Your task to perform on an android device: set default search engine in the chrome app Image 0: 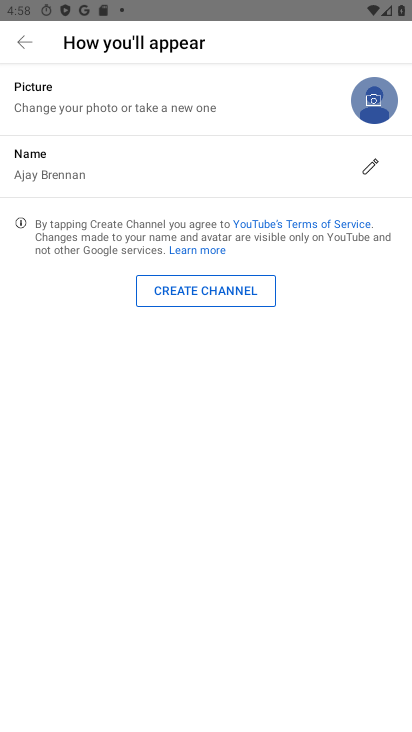
Step 0: drag from (318, 581) to (342, 228)
Your task to perform on an android device: set default search engine in the chrome app Image 1: 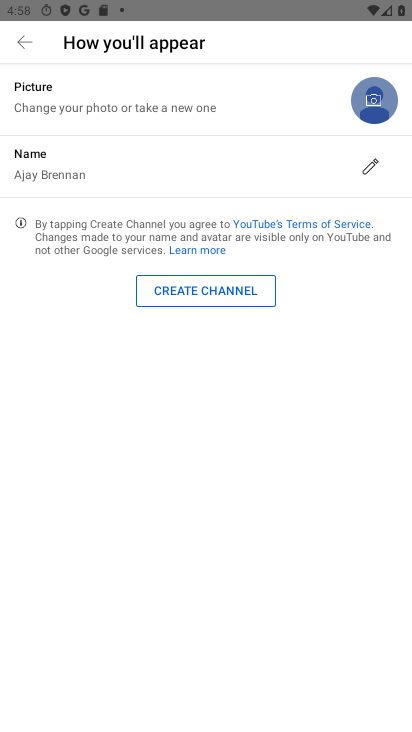
Step 1: press home button
Your task to perform on an android device: set default search engine in the chrome app Image 2: 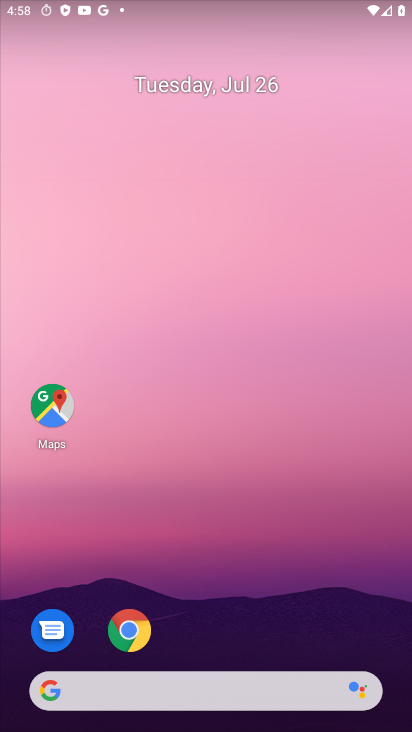
Step 2: drag from (355, 581) to (264, 18)
Your task to perform on an android device: set default search engine in the chrome app Image 3: 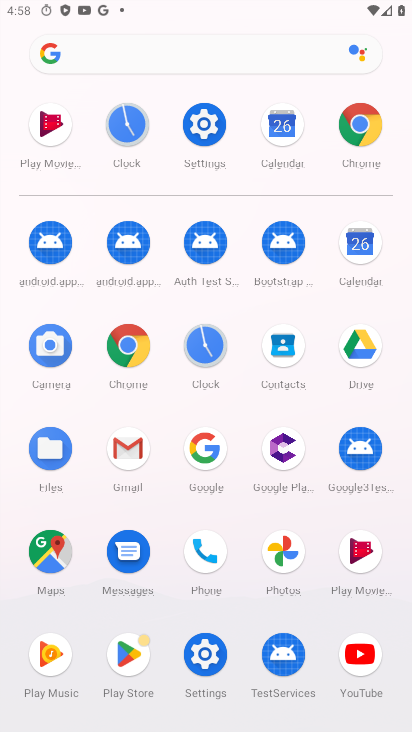
Step 3: click (129, 345)
Your task to perform on an android device: set default search engine in the chrome app Image 4: 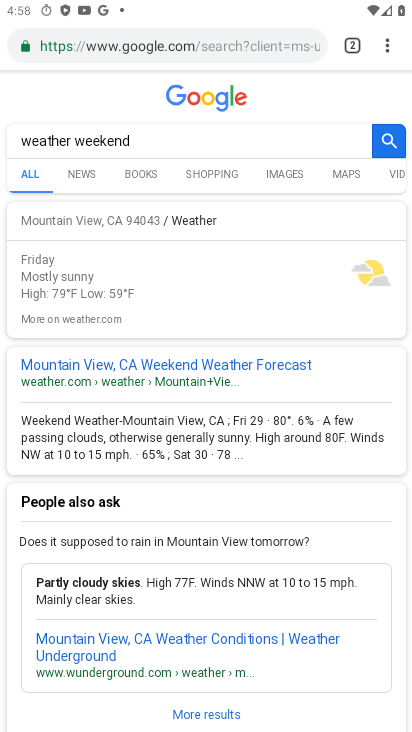
Step 4: drag from (390, 42) to (237, 508)
Your task to perform on an android device: set default search engine in the chrome app Image 5: 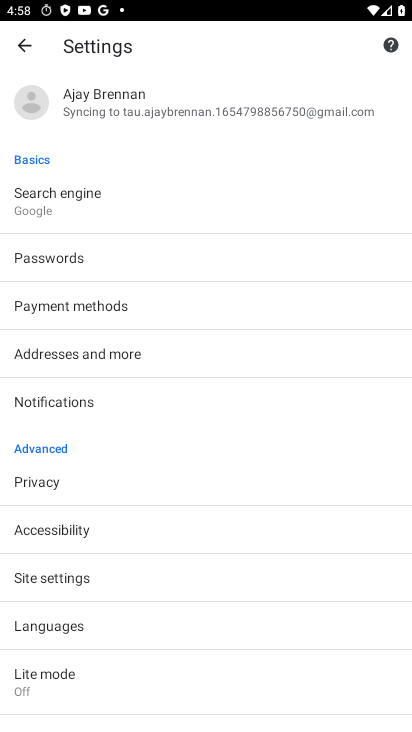
Step 5: click (77, 197)
Your task to perform on an android device: set default search engine in the chrome app Image 6: 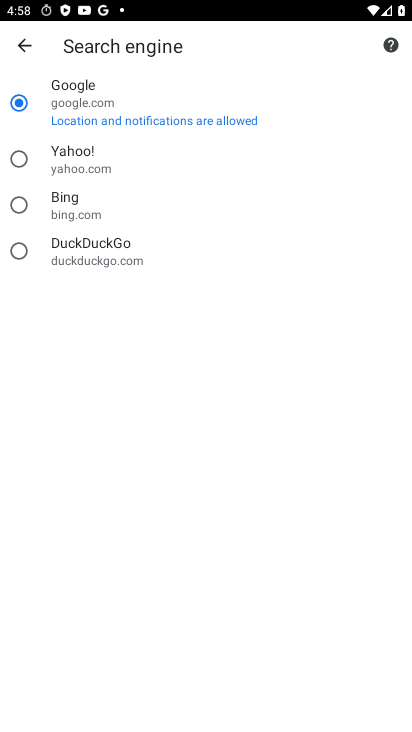
Step 6: task complete